Your task to perform on an android device: toggle show notifications on the lock screen Image 0: 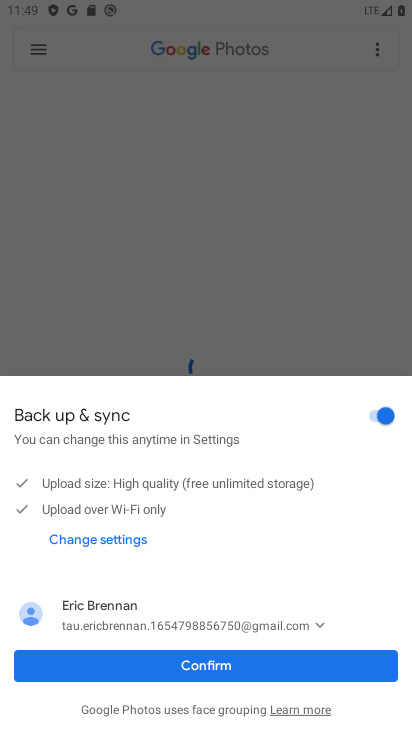
Step 0: click (221, 651)
Your task to perform on an android device: toggle show notifications on the lock screen Image 1: 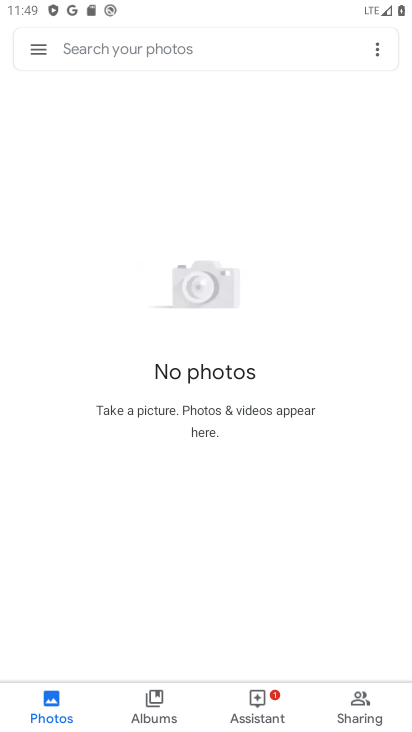
Step 1: press home button
Your task to perform on an android device: toggle show notifications on the lock screen Image 2: 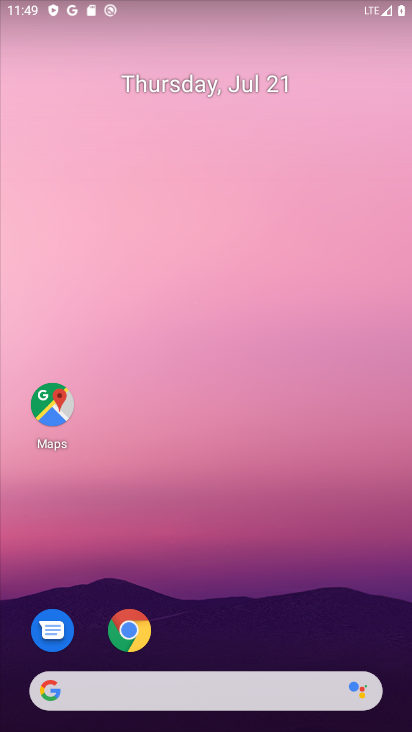
Step 2: drag from (201, 663) to (141, 123)
Your task to perform on an android device: toggle show notifications on the lock screen Image 3: 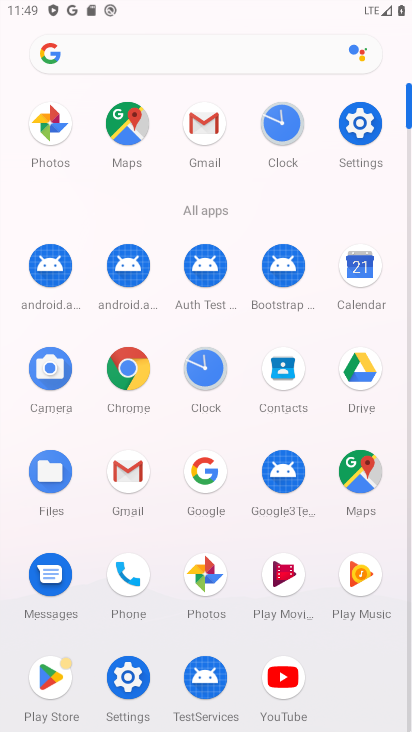
Step 3: click (369, 126)
Your task to perform on an android device: toggle show notifications on the lock screen Image 4: 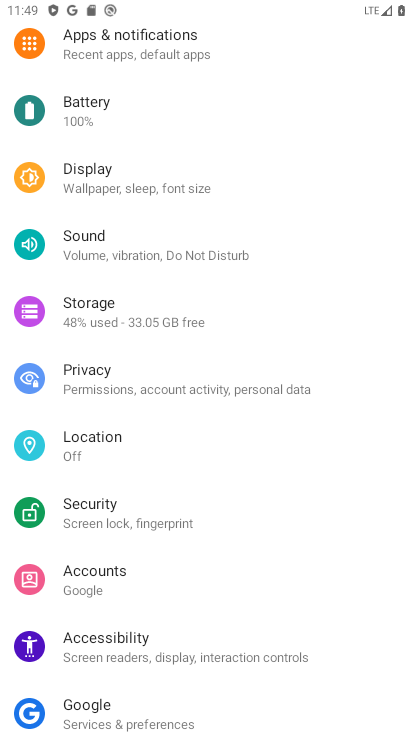
Step 4: click (118, 62)
Your task to perform on an android device: toggle show notifications on the lock screen Image 5: 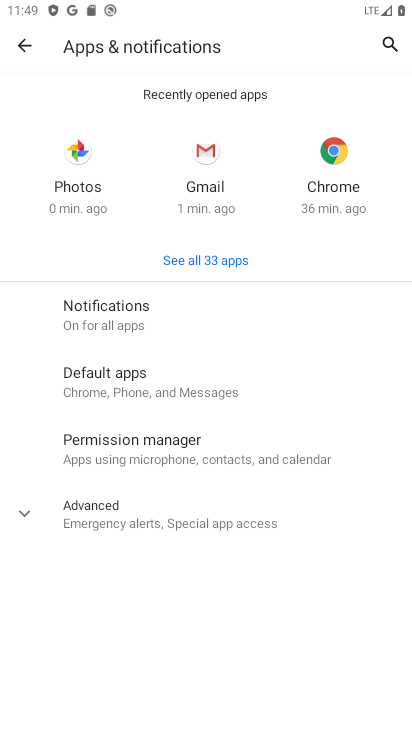
Step 5: click (128, 330)
Your task to perform on an android device: toggle show notifications on the lock screen Image 6: 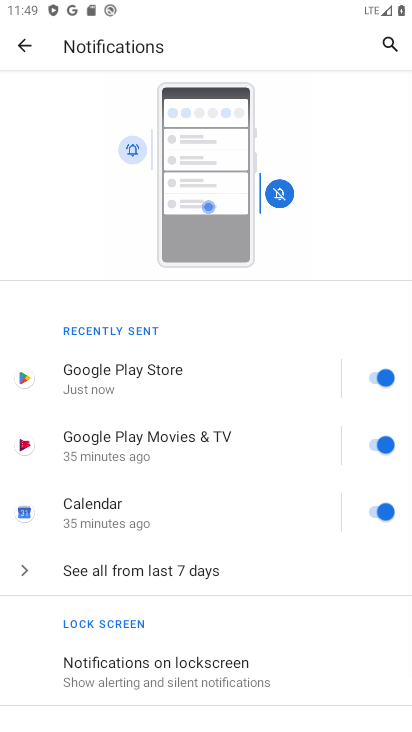
Step 6: click (198, 672)
Your task to perform on an android device: toggle show notifications on the lock screen Image 7: 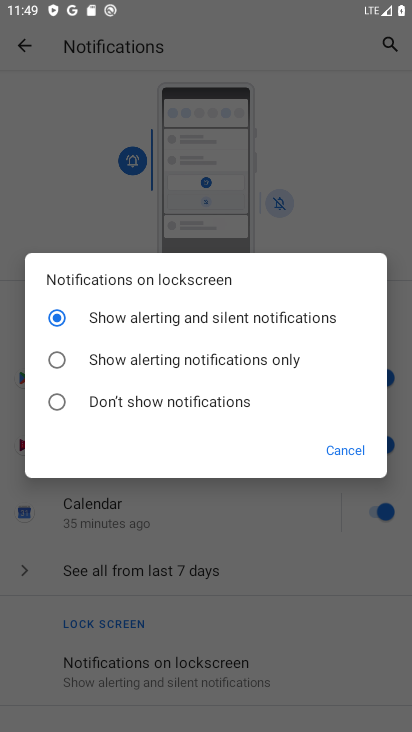
Step 7: click (135, 370)
Your task to perform on an android device: toggle show notifications on the lock screen Image 8: 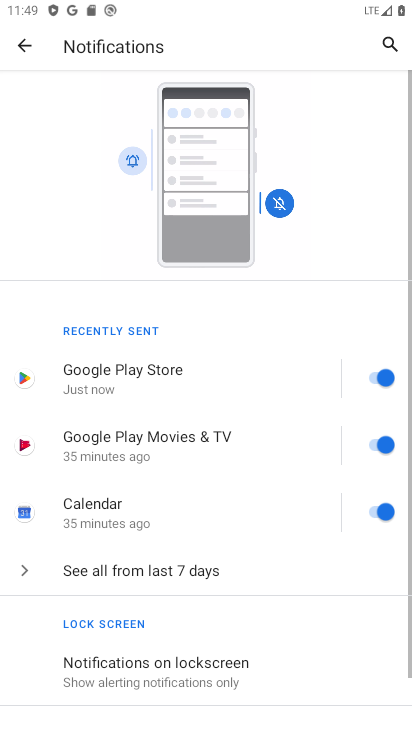
Step 8: task complete